Your task to perform on an android device: Do I have any events today? Image 0: 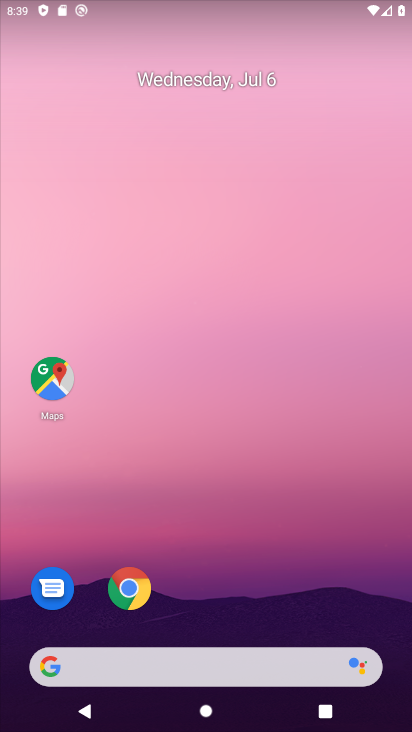
Step 0: click (163, 272)
Your task to perform on an android device: Do I have any events today? Image 1: 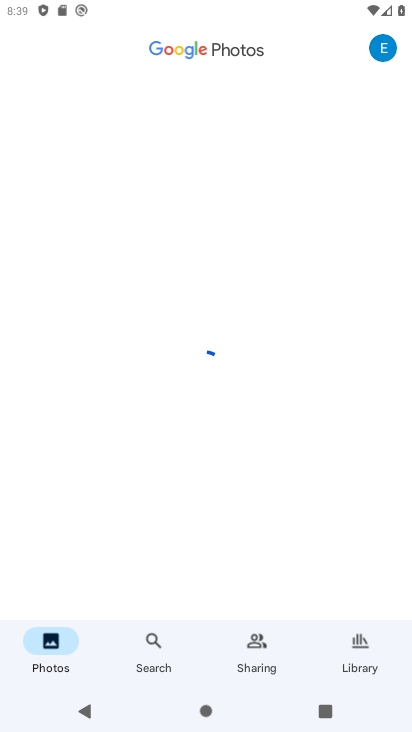
Step 1: press home button
Your task to perform on an android device: Do I have any events today? Image 2: 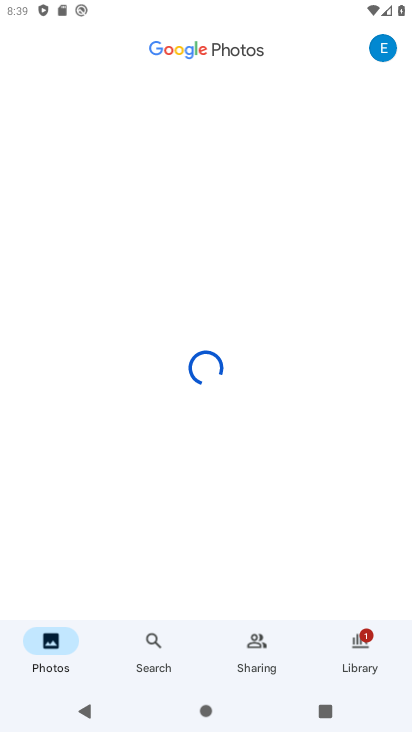
Step 2: press home button
Your task to perform on an android device: Do I have any events today? Image 3: 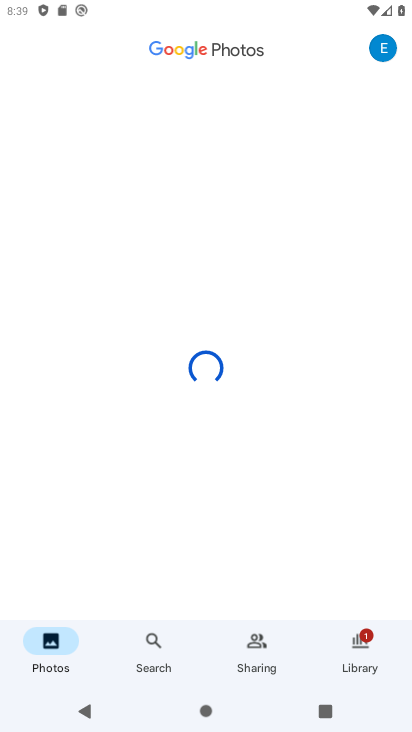
Step 3: click (254, 186)
Your task to perform on an android device: Do I have any events today? Image 4: 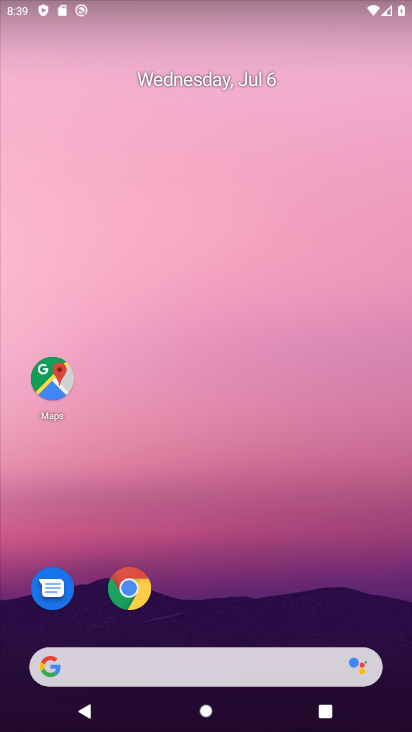
Step 4: drag from (170, 603) to (213, 187)
Your task to perform on an android device: Do I have any events today? Image 5: 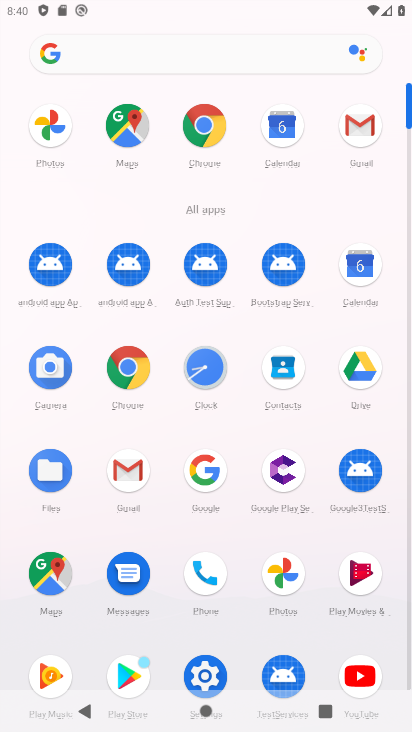
Step 5: click (370, 249)
Your task to perform on an android device: Do I have any events today? Image 6: 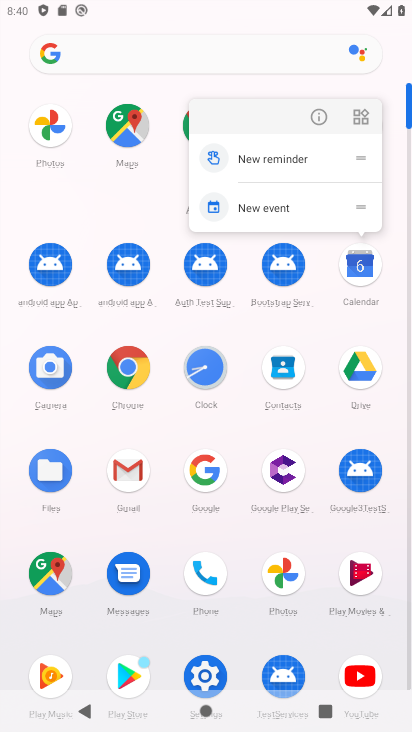
Step 6: click (321, 109)
Your task to perform on an android device: Do I have any events today? Image 7: 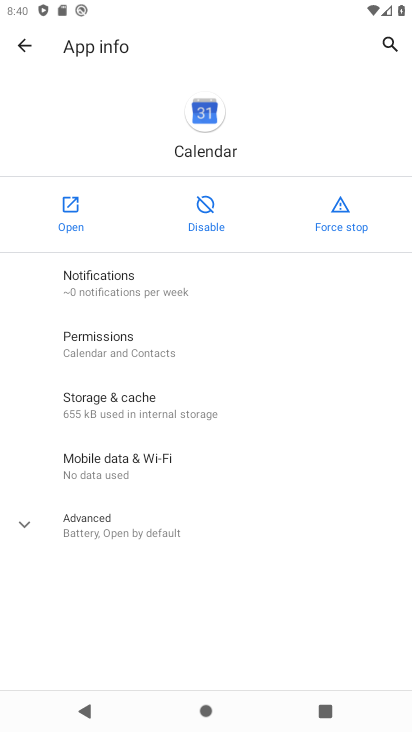
Step 7: click (73, 213)
Your task to perform on an android device: Do I have any events today? Image 8: 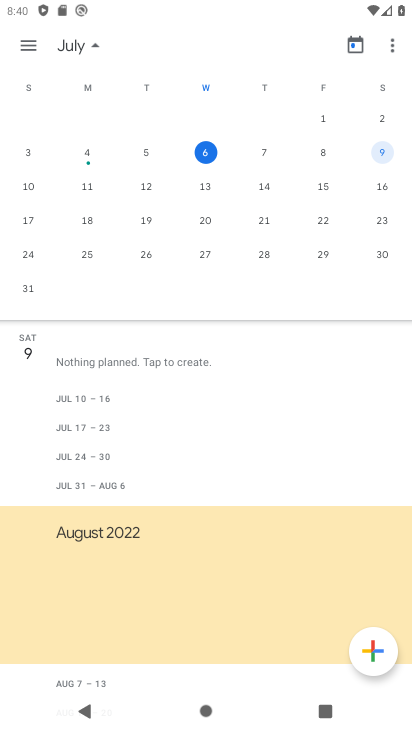
Step 8: drag from (210, 445) to (237, 239)
Your task to perform on an android device: Do I have any events today? Image 9: 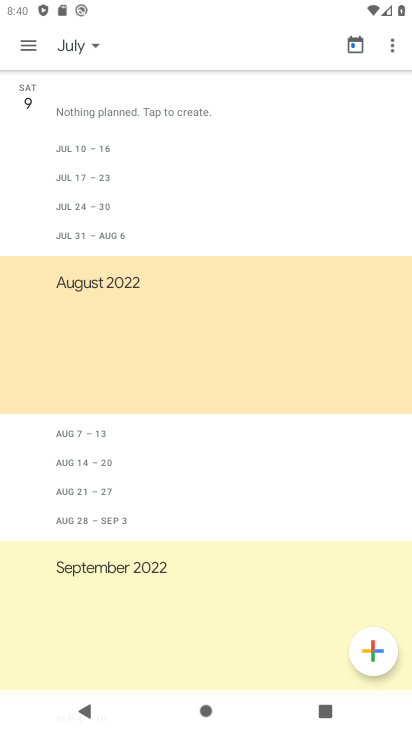
Step 9: drag from (161, 202) to (194, 550)
Your task to perform on an android device: Do I have any events today? Image 10: 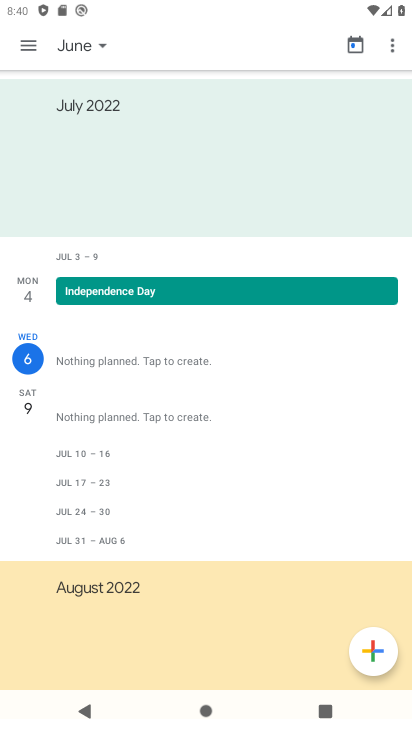
Step 10: click (86, 38)
Your task to perform on an android device: Do I have any events today? Image 11: 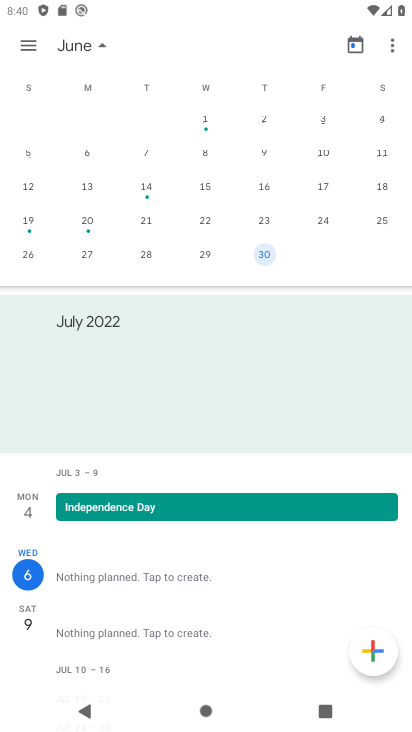
Step 11: drag from (344, 216) to (5, 228)
Your task to perform on an android device: Do I have any events today? Image 12: 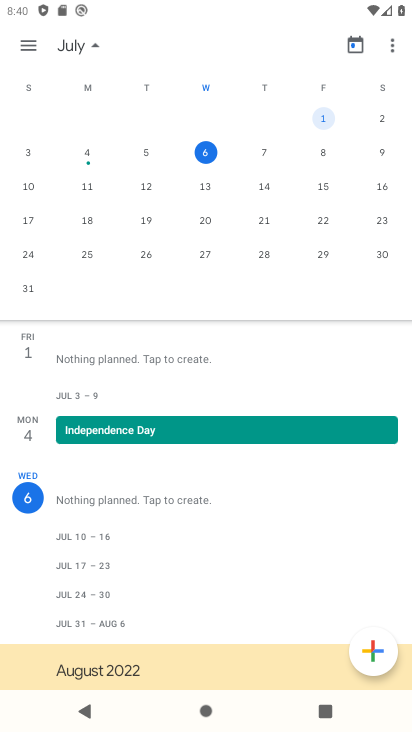
Step 12: click (198, 154)
Your task to perform on an android device: Do I have any events today? Image 13: 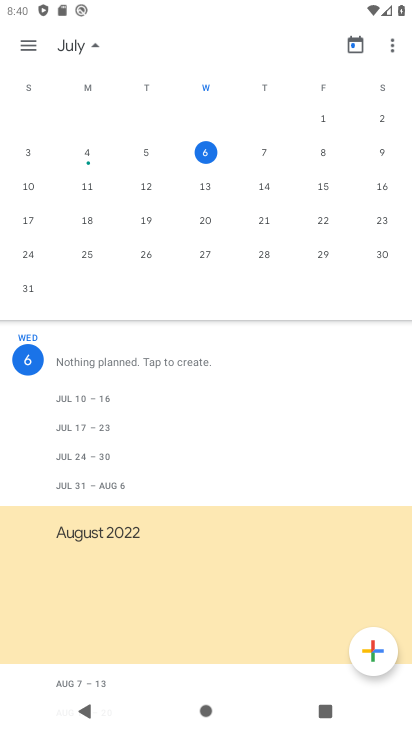
Step 13: task complete